Your task to perform on an android device: turn notification dots off Image 0: 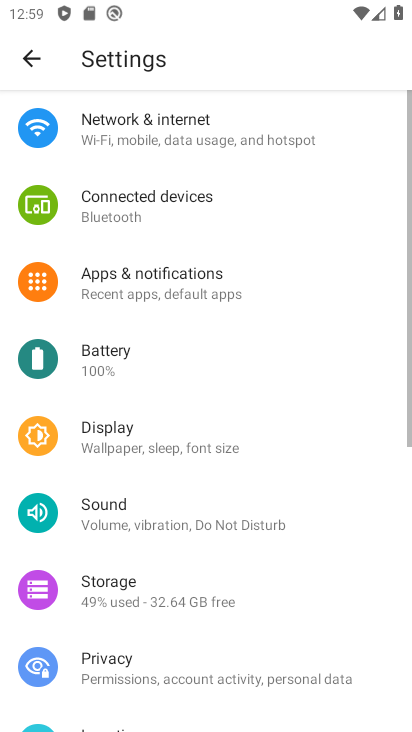
Step 0: press home button
Your task to perform on an android device: turn notification dots off Image 1: 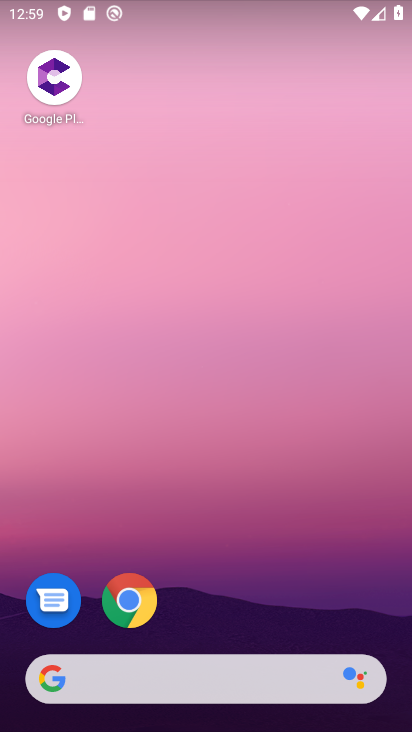
Step 1: drag from (193, 599) to (120, 41)
Your task to perform on an android device: turn notification dots off Image 2: 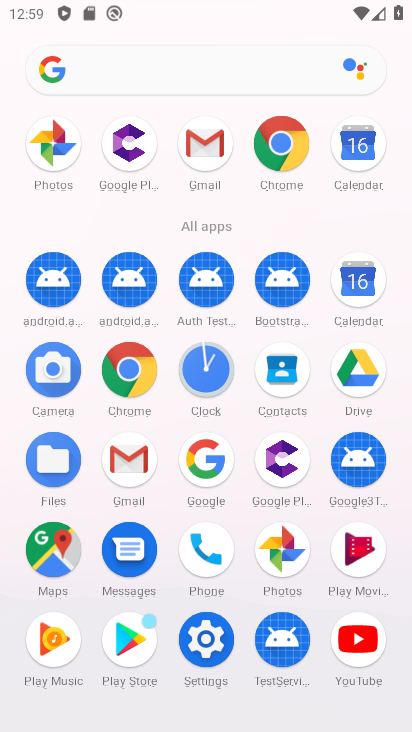
Step 2: click (217, 648)
Your task to perform on an android device: turn notification dots off Image 3: 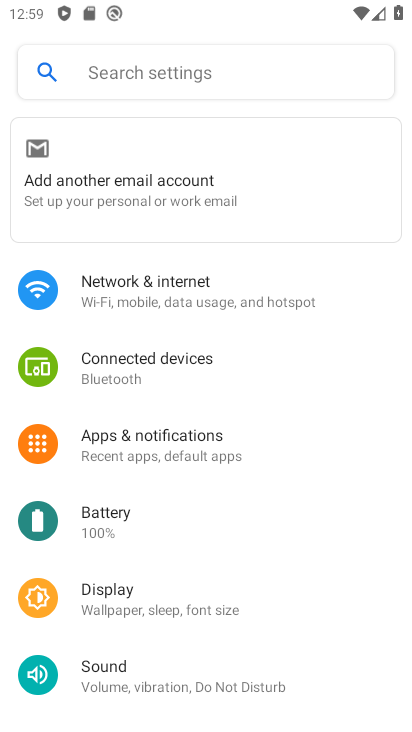
Step 3: click (212, 443)
Your task to perform on an android device: turn notification dots off Image 4: 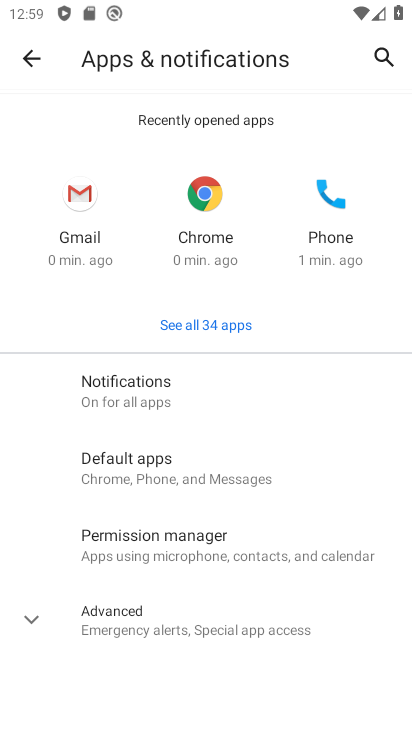
Step 4: click (129, 398)
Your task to perform on an android device: turn notification dots off Image 5: 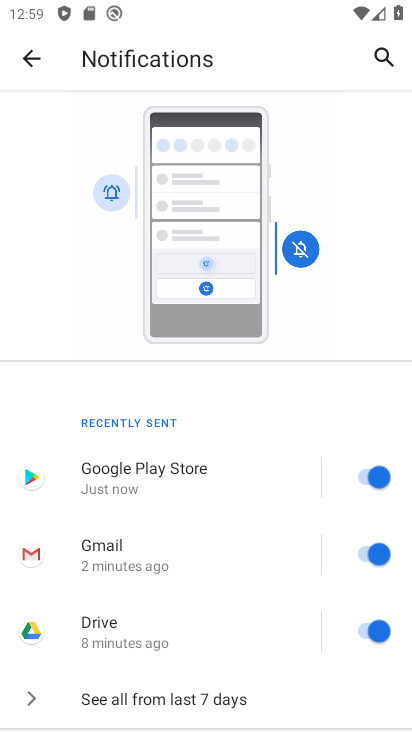
Step 5: drag from (205, 685) to (96, 145)
Your task to perform on an android device: turn notification dots off Image 6: 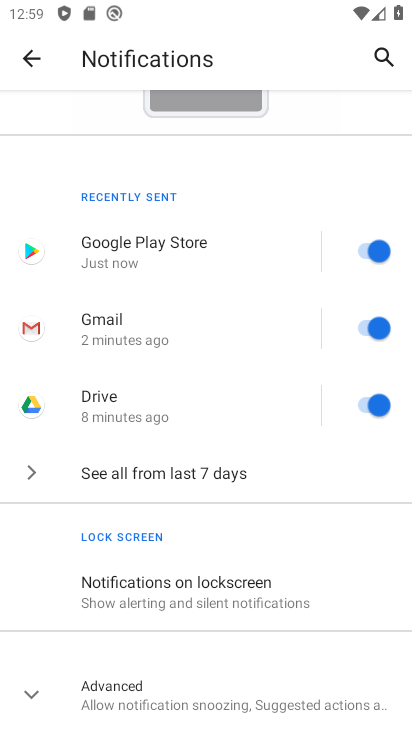
Step 6: click (153, 706)
Your task to perform on an android device: turn notification dots off Image 7: 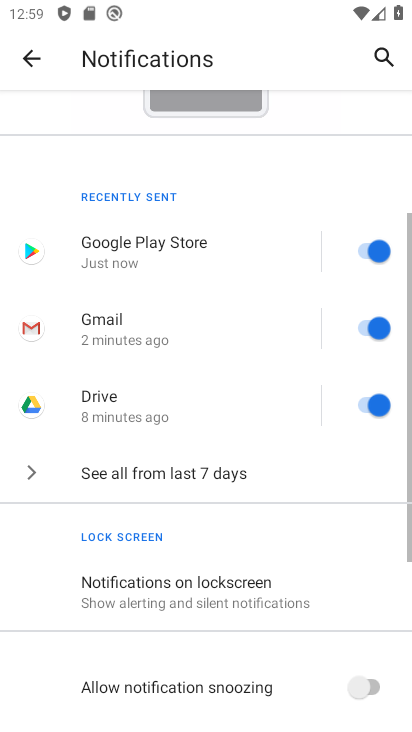
Step 7: drag from (150, 681) to (111, 207)
Your task to perform on an android device: turn notification dots off Image 8: 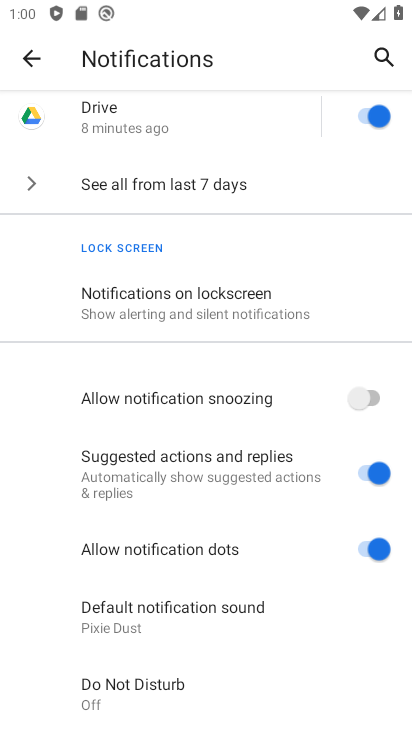
Step 8: click (385, 550)
Your task to perform on an android device: turn notification dots off Image 9: 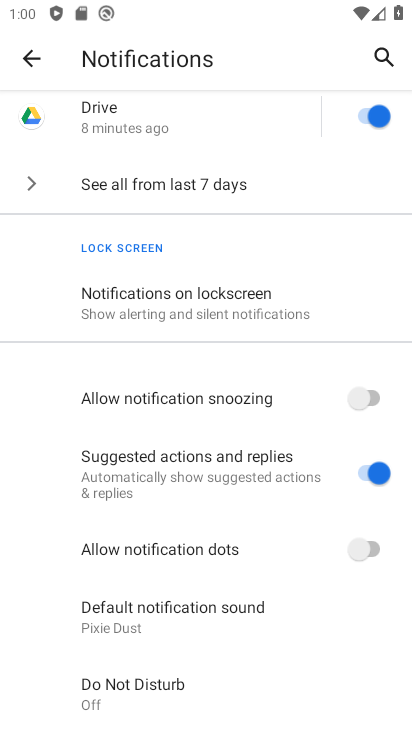
Step 9: task complete